Your task to perform on an android device: refresh tabs in the chrome app Image 0: 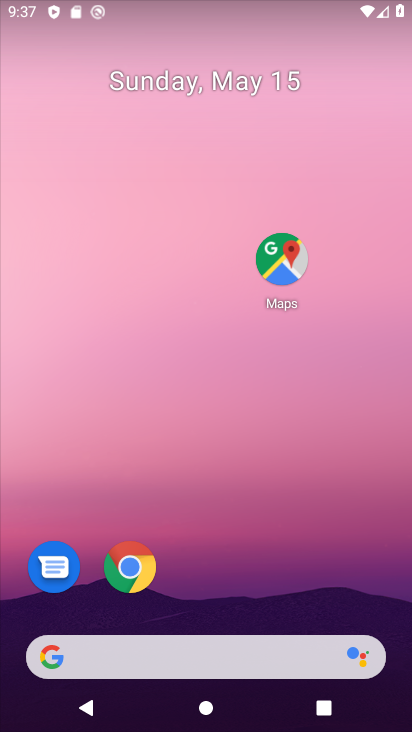
Step 0: click (128, 562)
Your task to perform on an android device: refresh tabs in the chrome app Image 1: 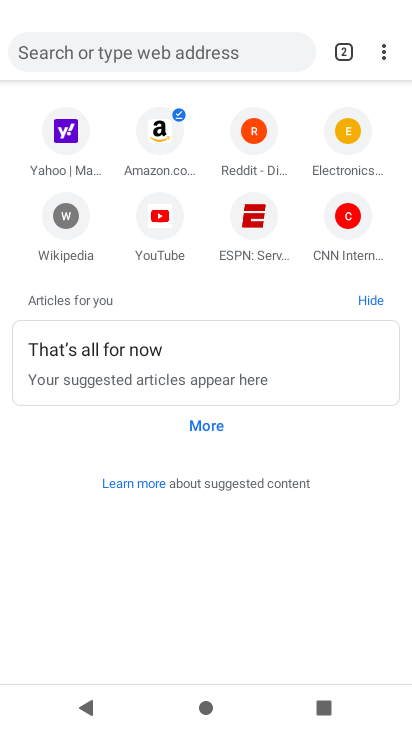
Step 1: click (377, 54)
Your task to perform on an android device: refresh tabs in the chrome app Image 2: 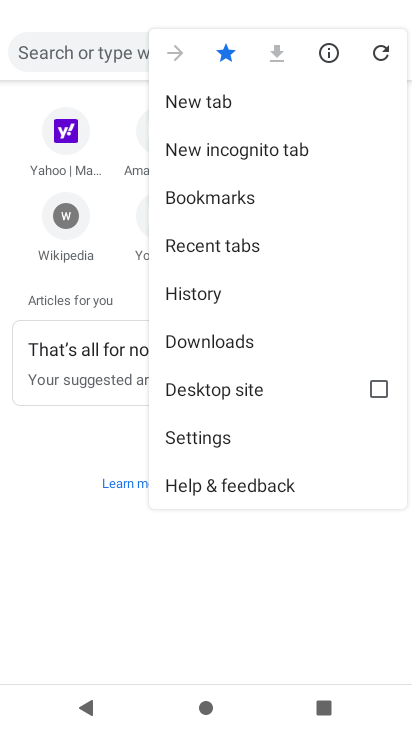
Step 2: click (384, 56)
Your task to perform on an android device: refresh tabs in the chrome app Image 3: 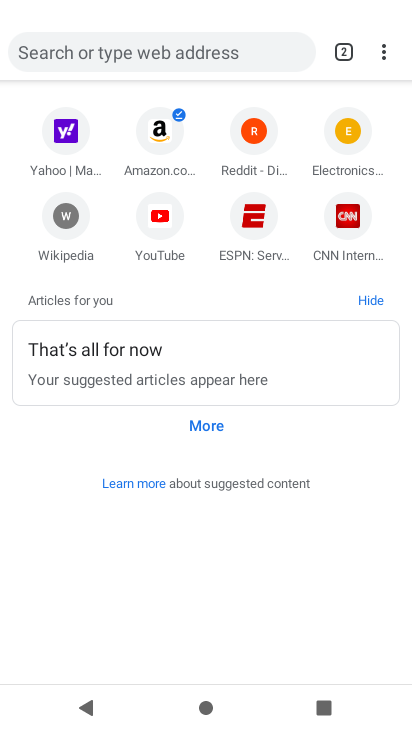
Step 3: task complete